Your task to perform on an android device: turn on priority inbox in the gmail app Image 0: 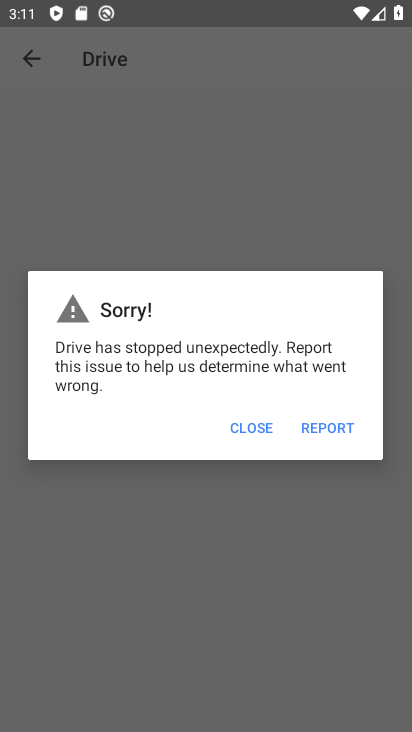
Step 0: press home button
Your task to perform on an android device: turn on priority inbox in the gmail app Image 1: 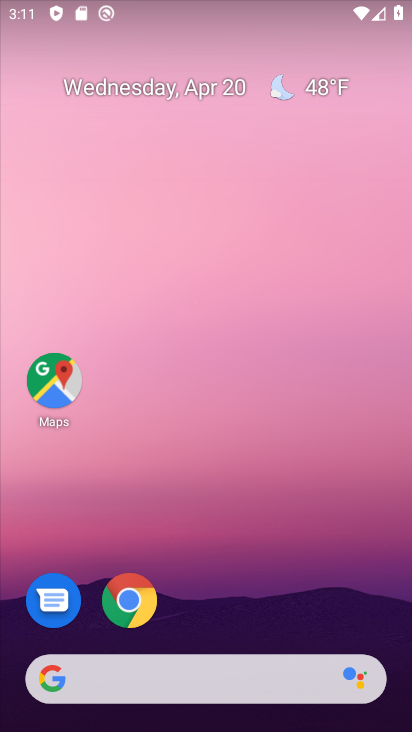
Step 1: drag from (313, 488) to (179, 0)
Your task to perform on an android device: turn on priority inbox in the gmail app Image 2: 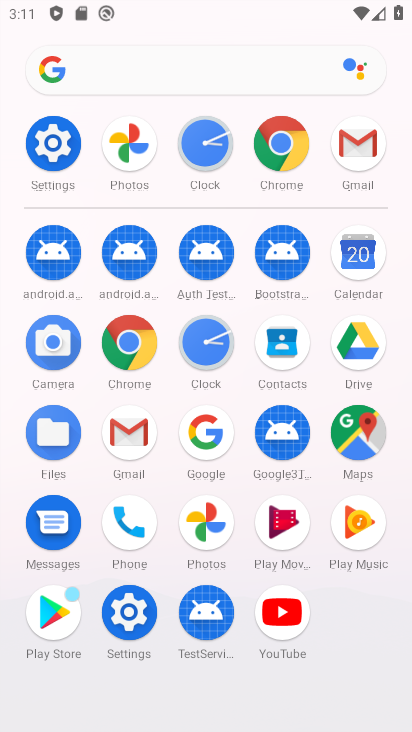
Step 2: click (346, 154)
Your task to perform on an android device: turn on priority inbox in the gmail app Image 3: 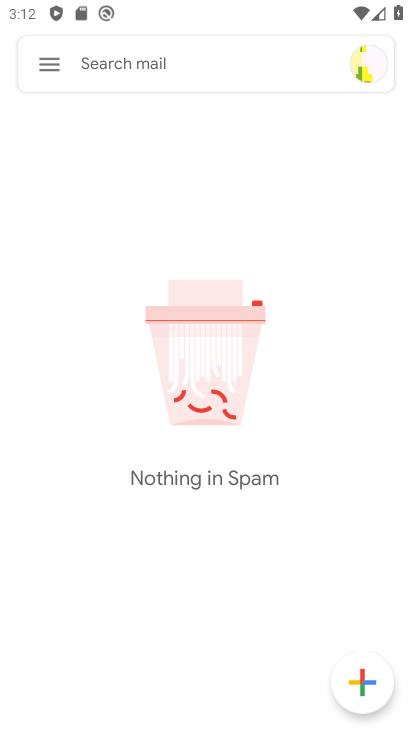
Step 3: click (56, 65)
Your task to perform on an android device: turn on priority inbox in the gmail app Image 4: 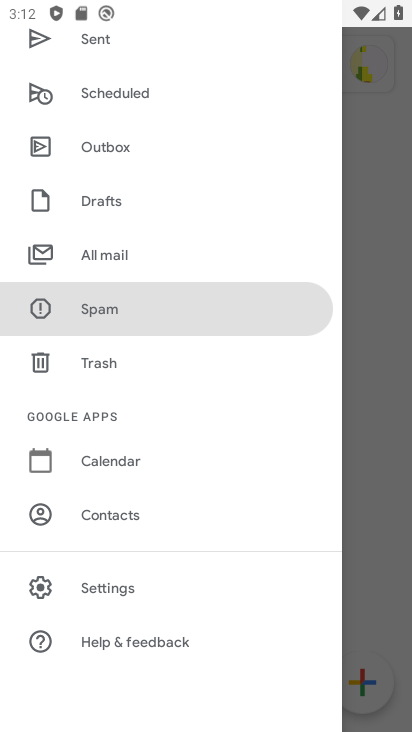
Step 4: click (141, 589)
Your task to perform on an android device: turn on priority inbox in the gmail app Image 5: 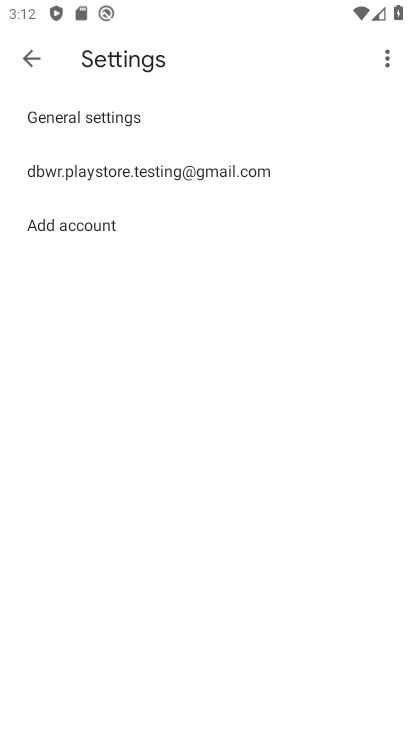
Step 5: click (74, 163)
Your task to perform on an android device: turn on priority inbox in the gmail app Image 6: 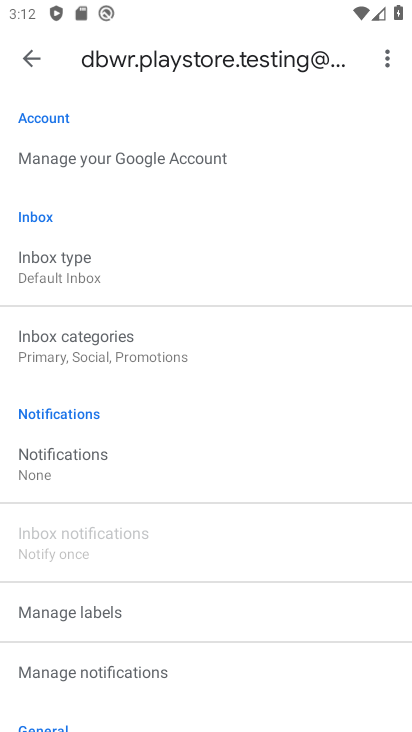
Step 6: click (28, 274)
Your task to perform on an android device: turn on priority inbox in the gmail app Image 7: 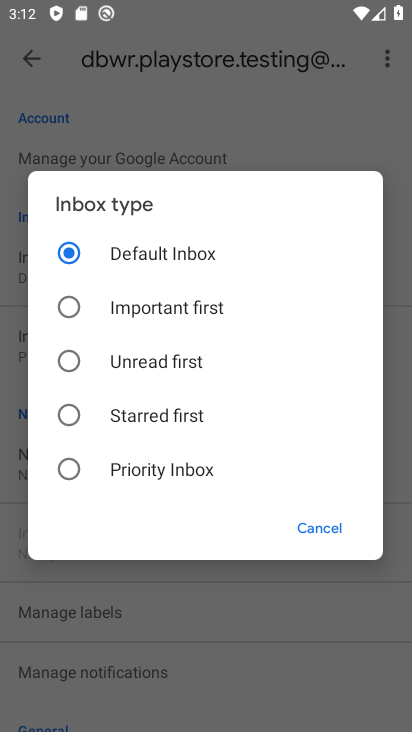
Step 7: click (173, 464)
Your task to perform on an android device: turn on priority inbox in the gmail app Image 8: 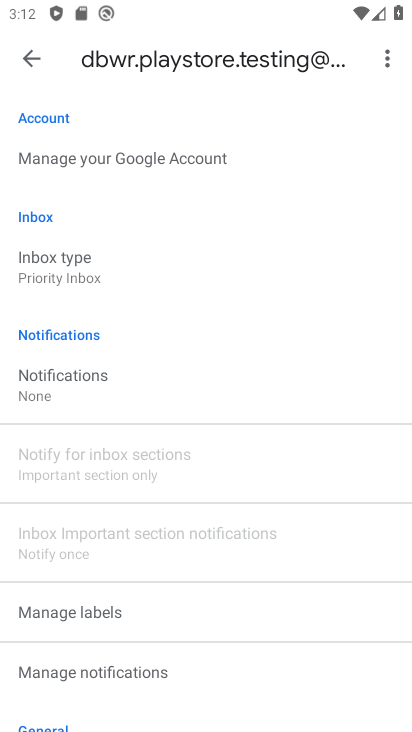
Step 8: task complete